Your task to perform on an android device: View the shopping cart on target. Search for razer huntsman on target, select the first entry, add it to the cart, then select checkout. Image 0: 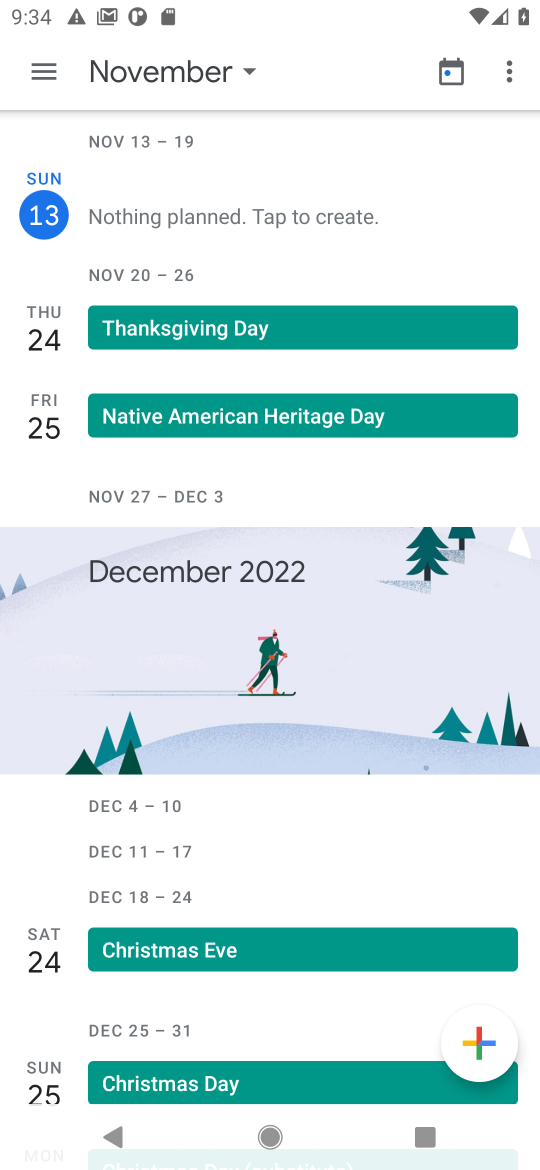
Step 0: press home button
Your task to perform on an android device: View the shopping cart on target. Search for razer huntsman on target, select the first entry, add it to the cart, then select checkout. Image 1: 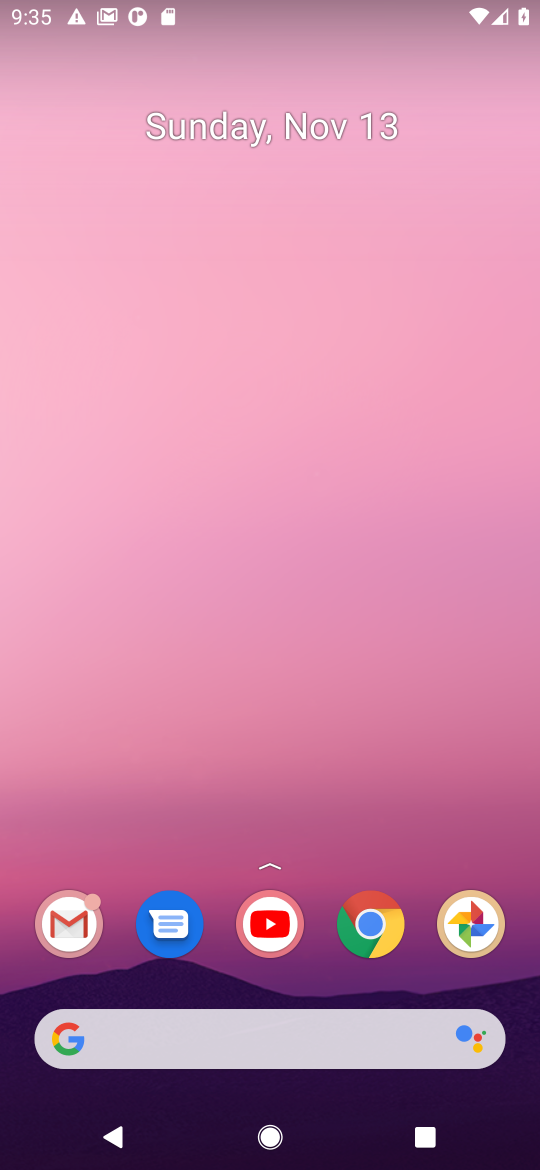
Step 1: click (380, 920)
Your task to perform on an android device: View the shopping cart on target. Search for razer huntsman on target, select the first entry, add it to the cart, then select checkout. Image 2: 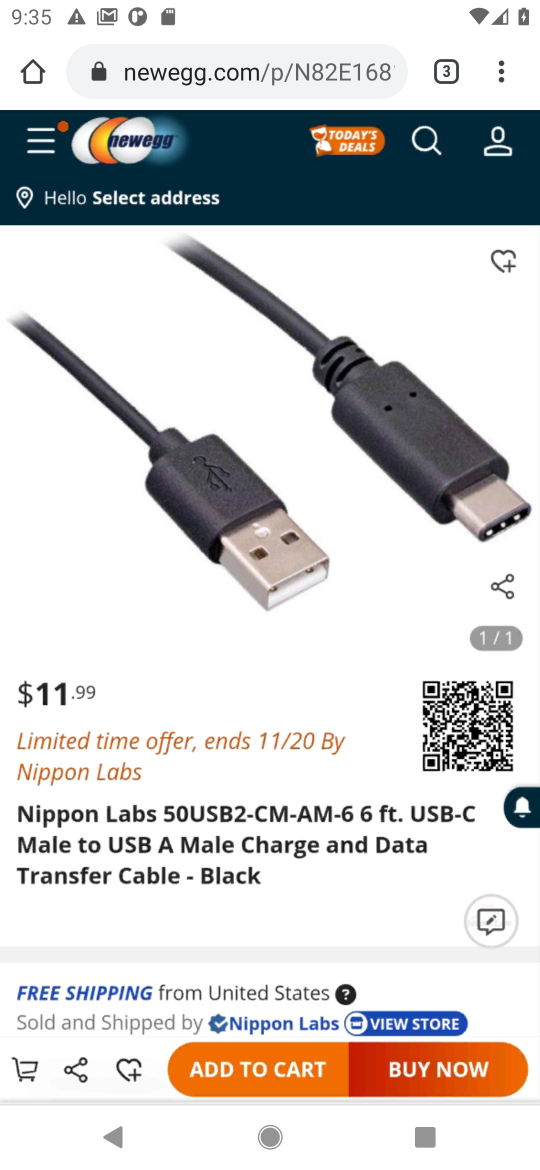
Step 2: click (278, 78)
Your task to perform on an android device: View the shopping cart on target. Search for razer huntsman on target, select the first entry, add it to the cart, then select checkout. Image 3: 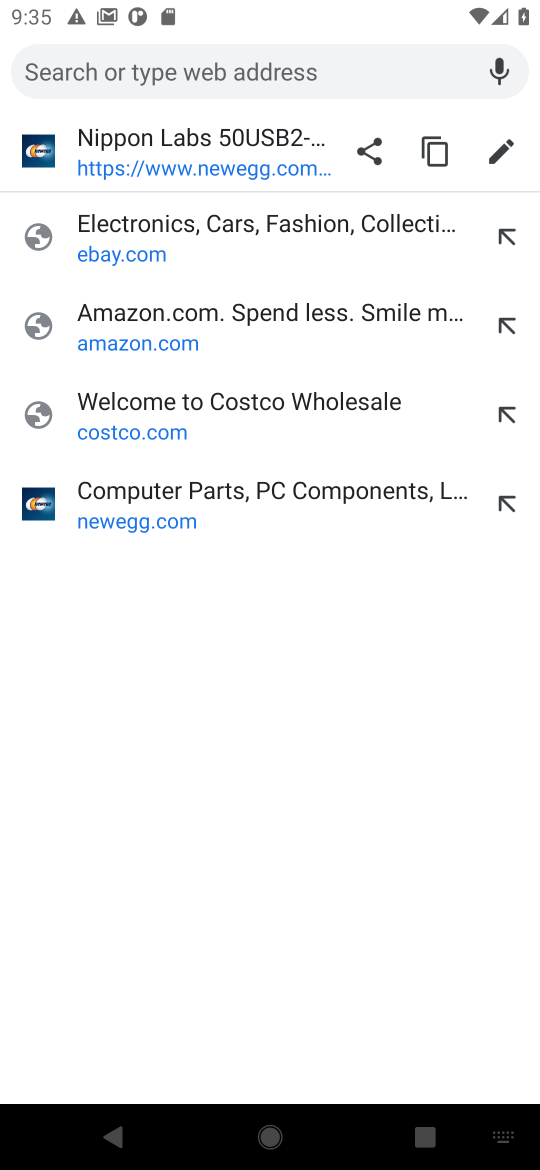
Step 3: type "target.com"
Your task to perform on an android device: View the shopping cart on target. Search for razer huntsman on target, select the first entry, add it to the cart, then select checkout. Image 4: 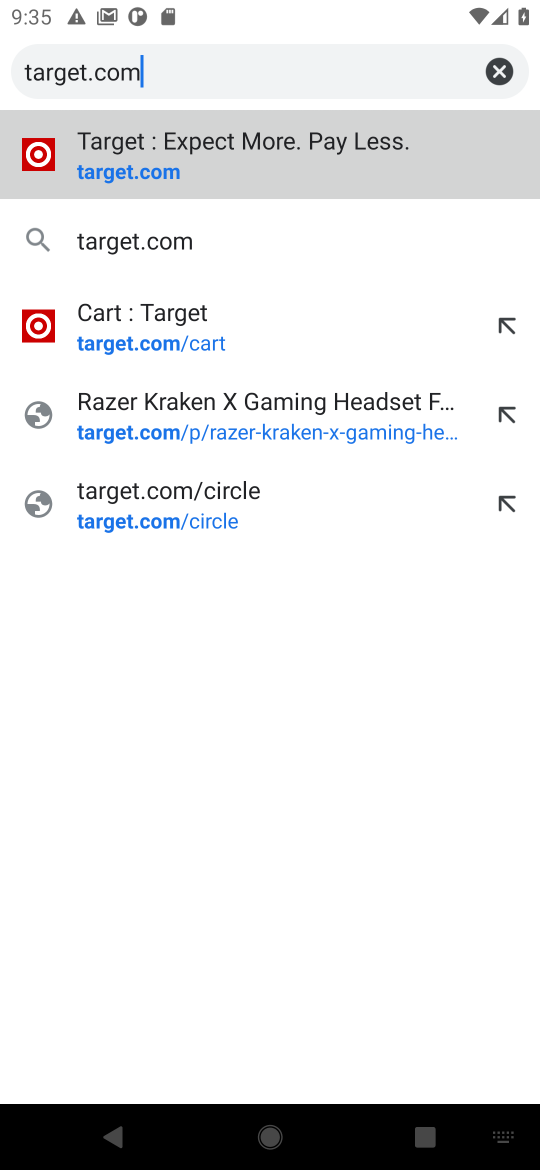
Step 4: click (133, 164)
Your task to perform on an android device: View the shopping cart on target. Search for razer huntsman on target, select the first entry, add it to the cart, then select checkout. Image 5: 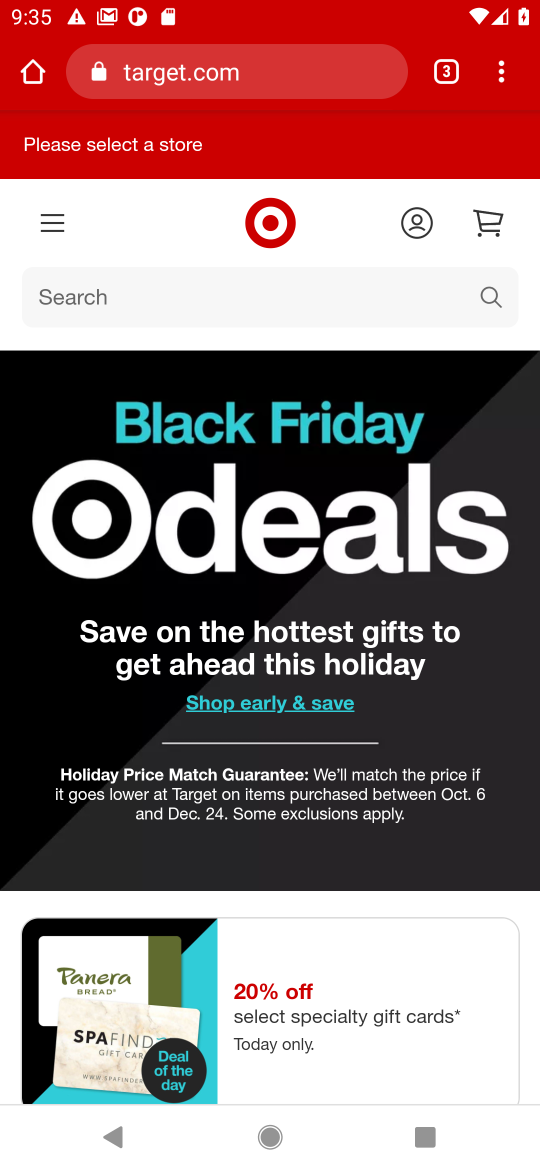
Step 5: click (495, 219)
Your task to perform on an android device: View the shopping cart on target. Search for razer huntsman on target, select the first entry, add it to the cart, then select checkout. Image 6: 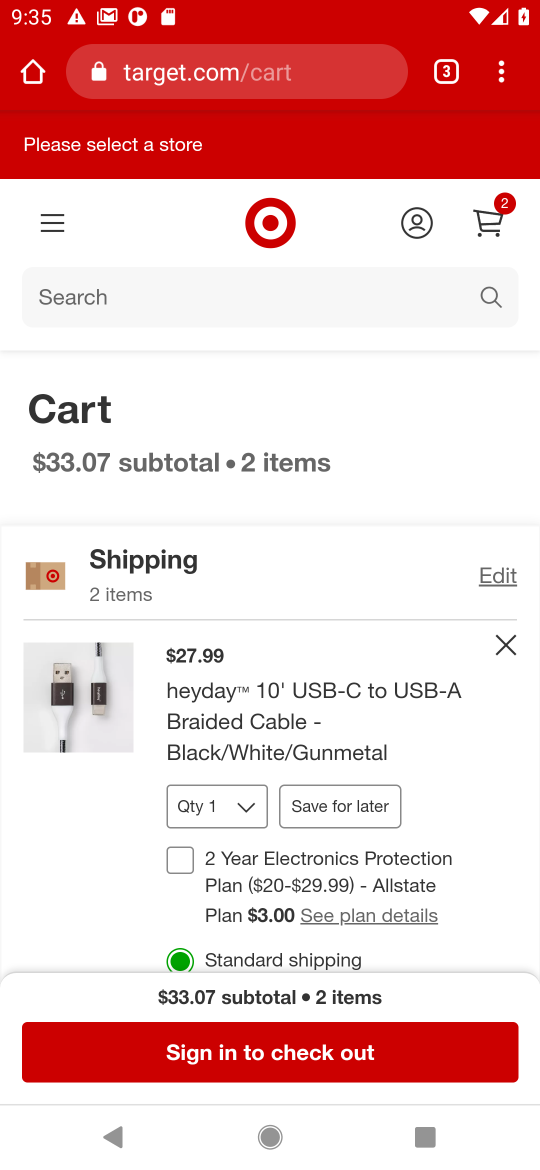
Step 6: click (482, 303)
Your task to perform on an android device: View the shopping cart on target. Search for razer huntsman on target, select the first entry, add it to the cart, then select checkout. Image 7: 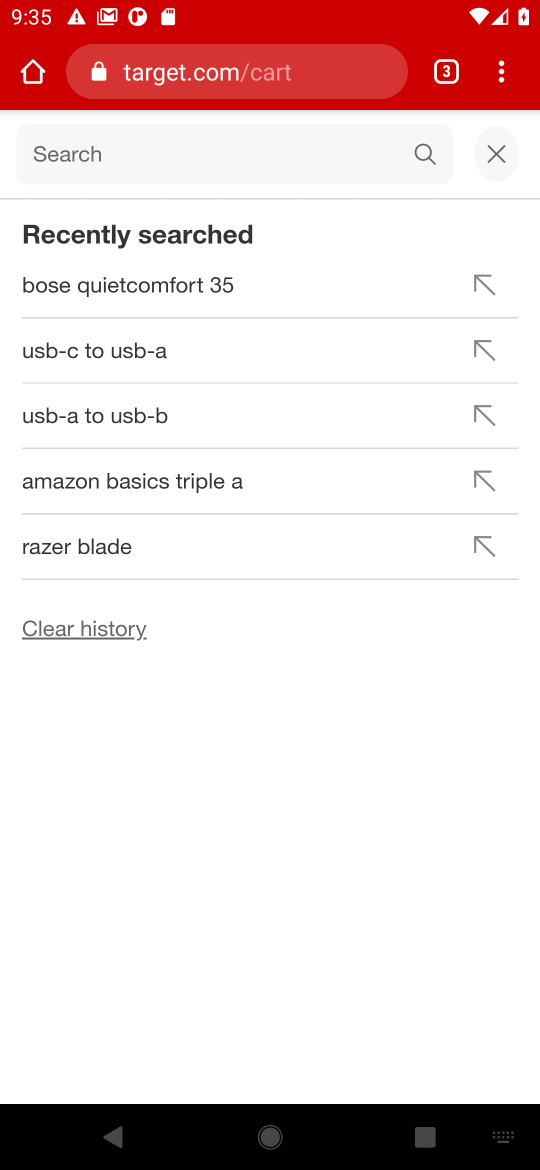
Step 7: type "razer huntsman"
Your task to perform on an android device: View the shopping cart on target. Search for razer huntsman on target, select the first entry, add it to the cart, then select checkout. Image 8: 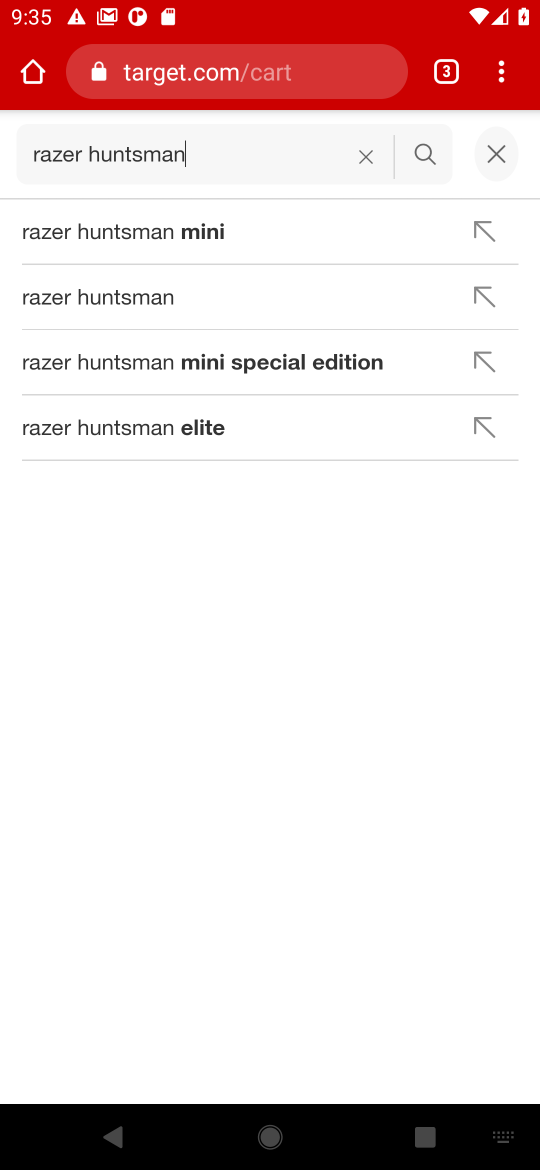
Step 8: click (98, 309)
Your task to perform on an android device: View the shopping cart on target. Search for razer huntsman on target, select the first entry, add it to the cart, then select checkout. Image 9: 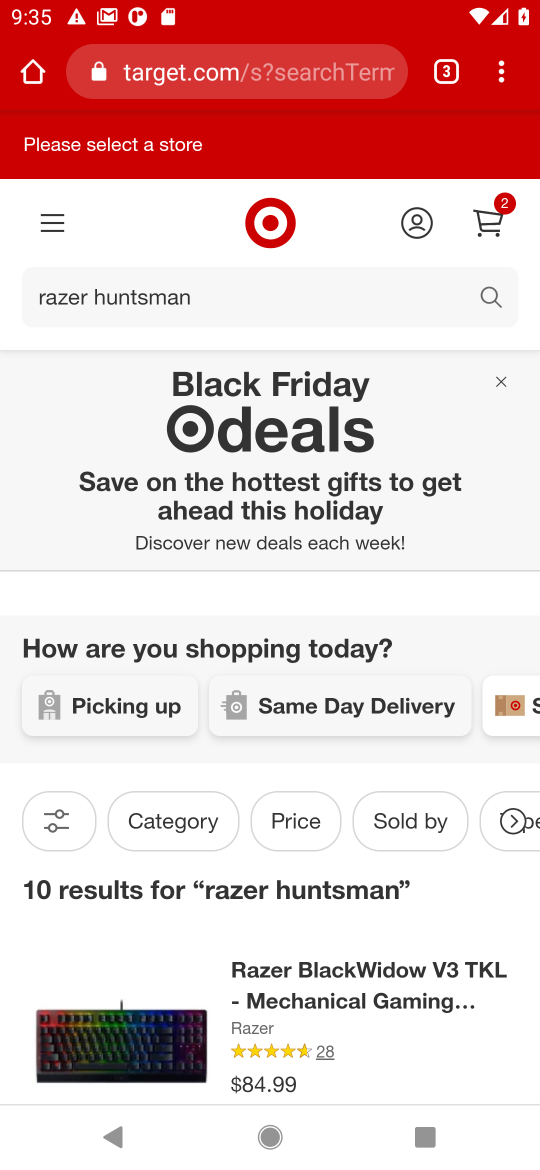
Step 9: task complete